Your task to perform on an android device: Open calendar and show me the fourth week of next month Image 0: 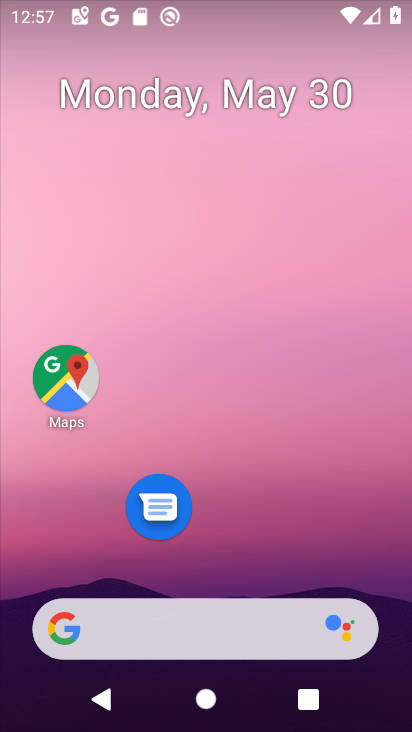
Step 0: drag from (274, 519) to (303, 78)
Your task to perform on an android device: Open calendar and show me the fourth week of next month Image 1: 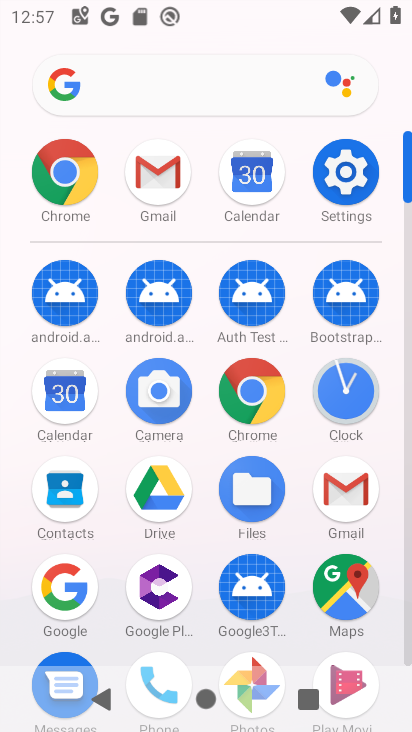
Step 1: click (255, 167)
Your task to perform on an android device: Open calendar and show me the fourth week of next month Image 2: 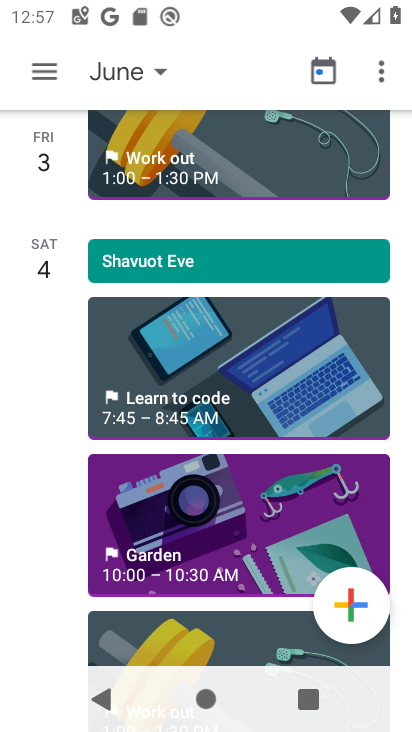
Step 2: click (125, 74)
Your task to perform on an android device: Open calendar and show me the fourth week of next month Image 3: 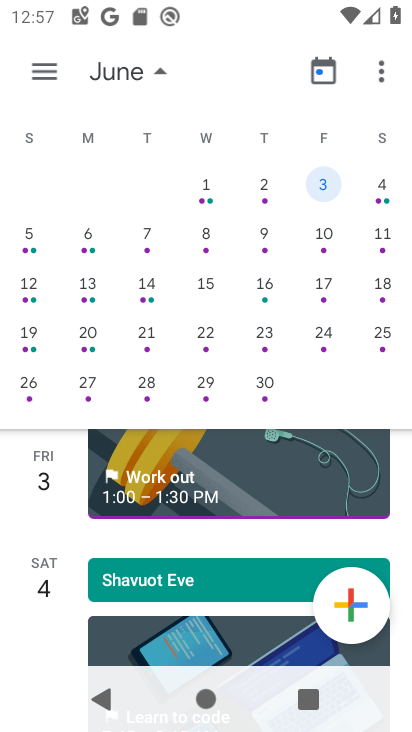
Step 3: click (209, 387)
Your task to perform on an android device: Open calendar and show me the fourth week of next month Image 4: 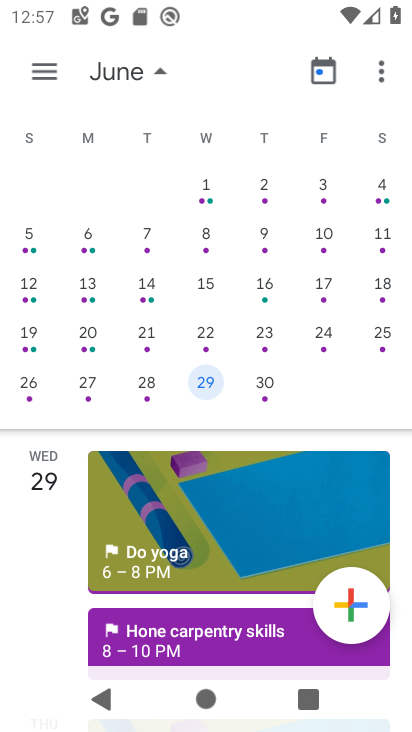
Step 4: task complete